Your task to perform on an android device: Open eBay Image 0: 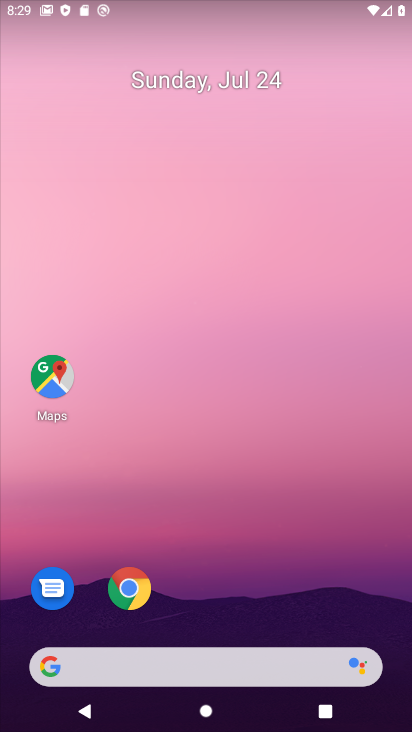
Step 0: drag from (219, 605) to (236, 25)
Your task to perform on an android device: Open eBay Image 1: 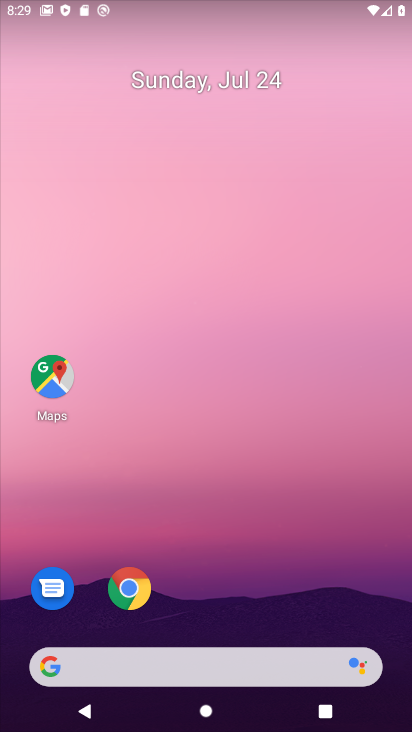
Step 1: drag from (210, 622) to (245, 63)
Your task to perform on an android device: Open eBay Image 2: 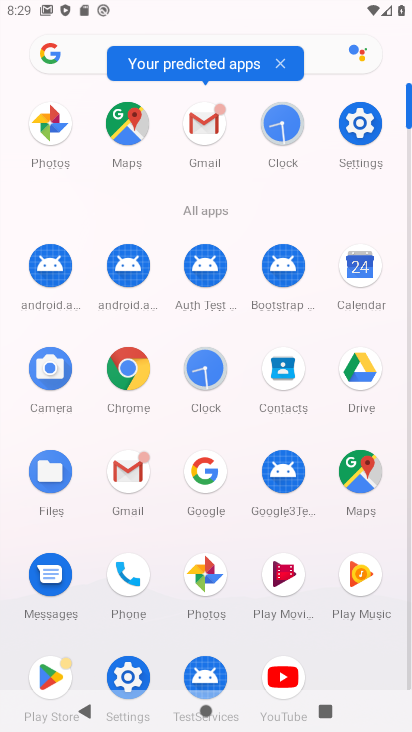
Step 2: click (123, 361)
Your task to perform on an android device: Open eBay Image 3: 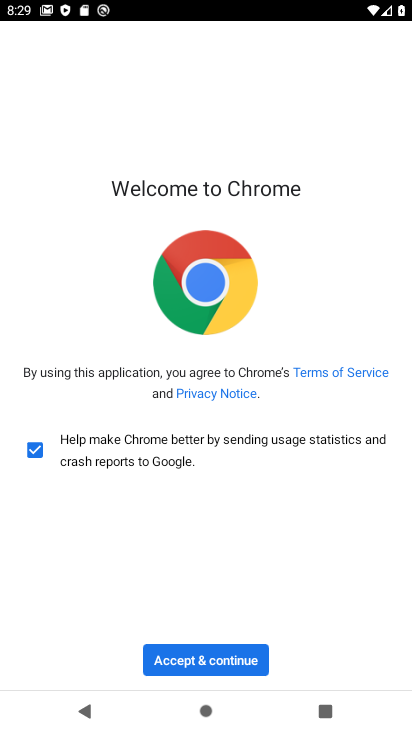
Step 3: click (199, 650)
Your task to perform on an android device: Open eBay Image 4: 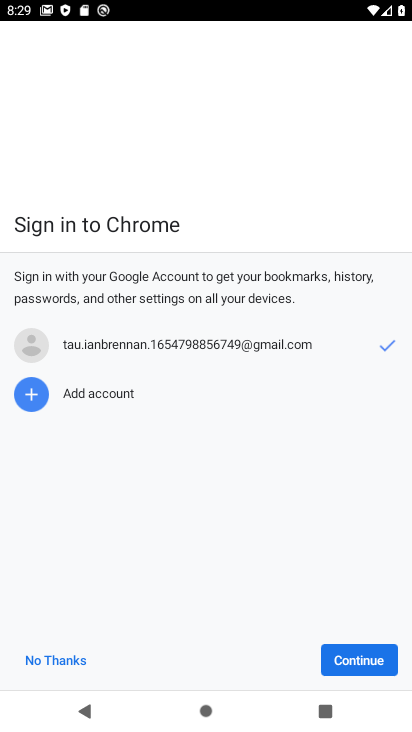
Step 4: click (352, 658)
Your task to perform on an android device: Open eBay Image 5: 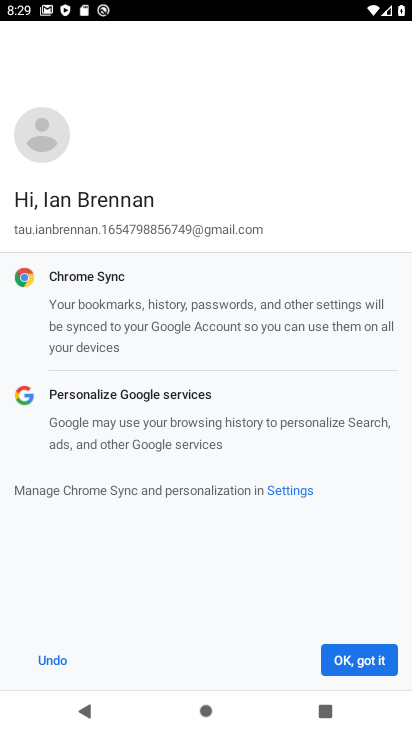
Step 5: click (356, 658)
Your task to perform on an android device: Open eBay Image 6: 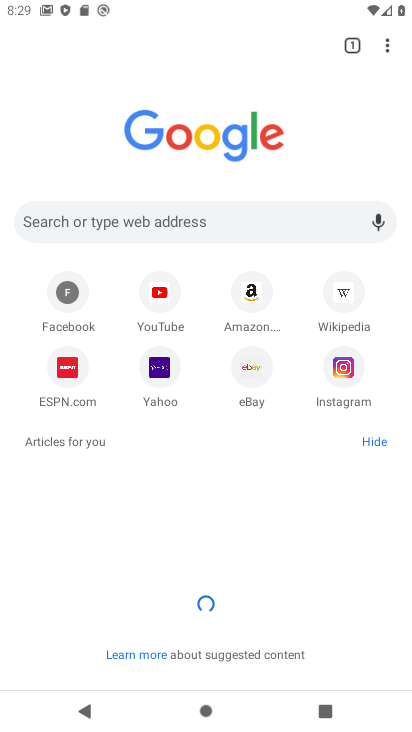
Step 6: click (251, 366)
Your task to perform on an android device: Open eBay Image 7: 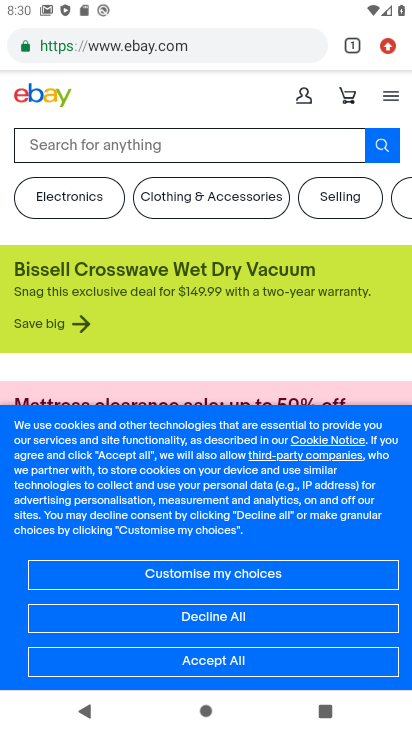
Step 7: click (221, 665)
Your task to perform on an android device: Open eBay Image 8: 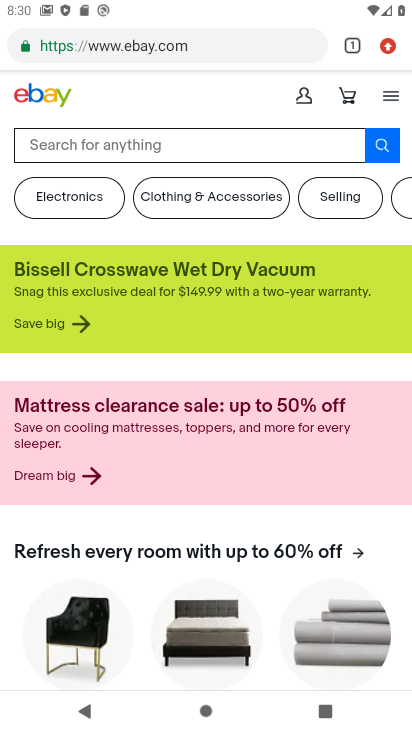
Step 8: task complete